Your task to perform on an android device: Add usb-c to the cart on ebay.com Image 0: 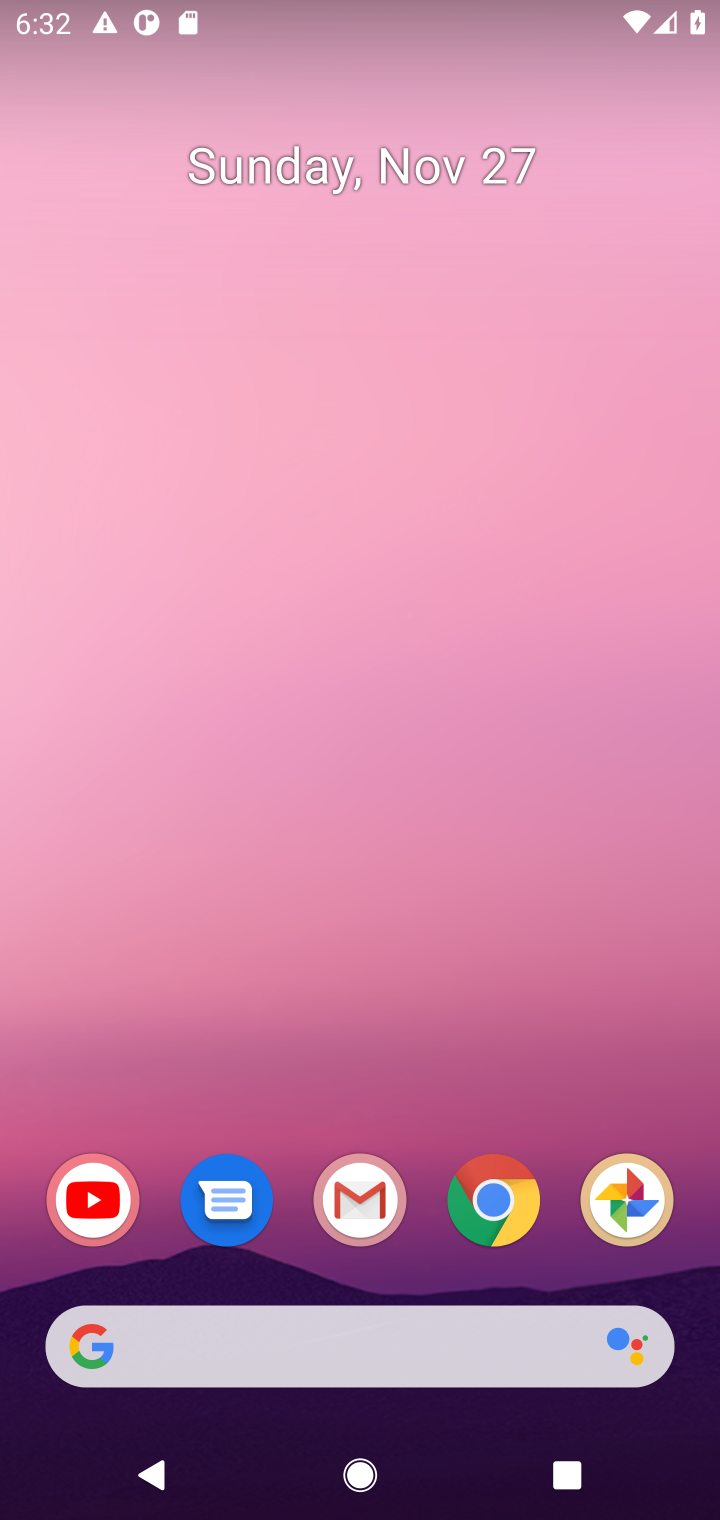
Step 0: click (508, 1204)
Your task to perform on an android device: Add usb-c to the cart on ebay.com Image 1: 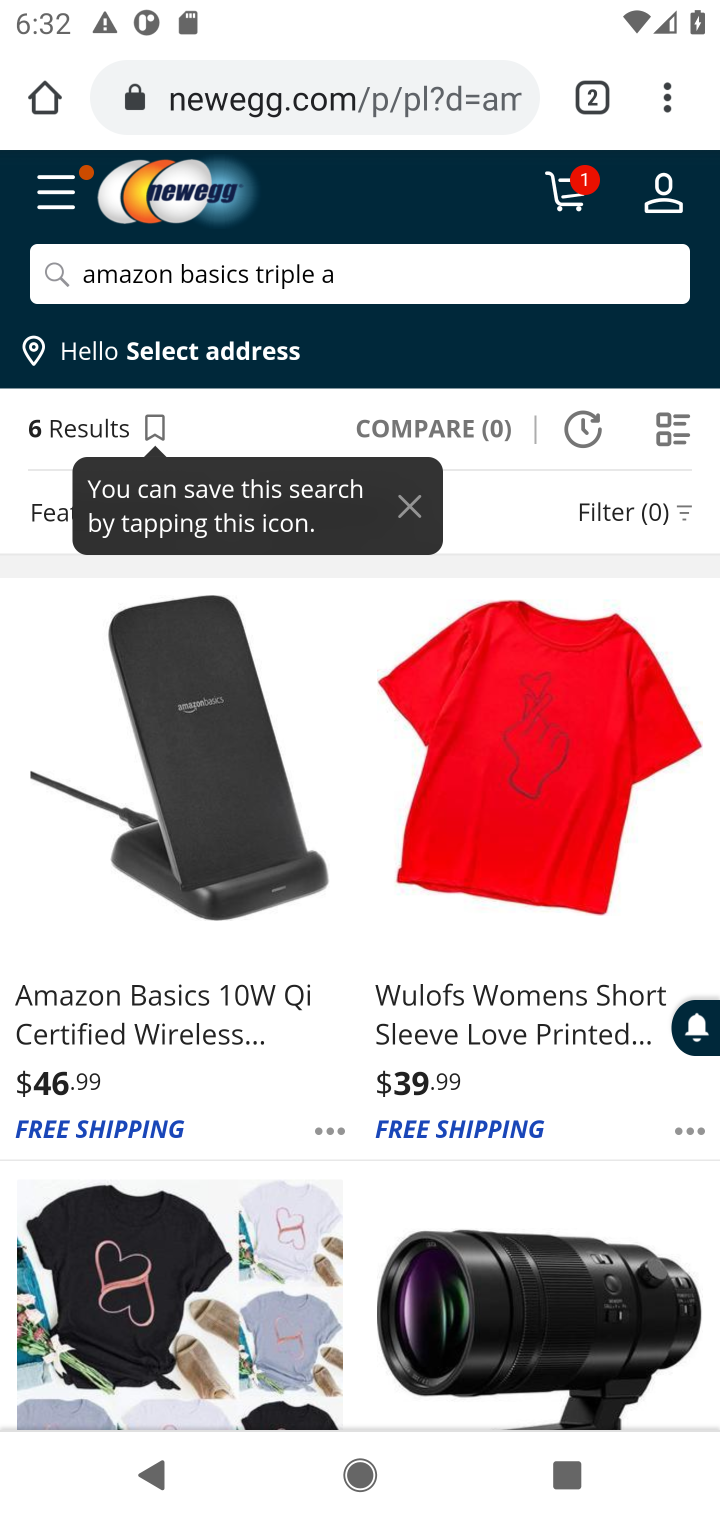
Step 1: click (236, 102)
Your task to perform on an android device: Add usb-c to the cart on ebay.com Image 2: 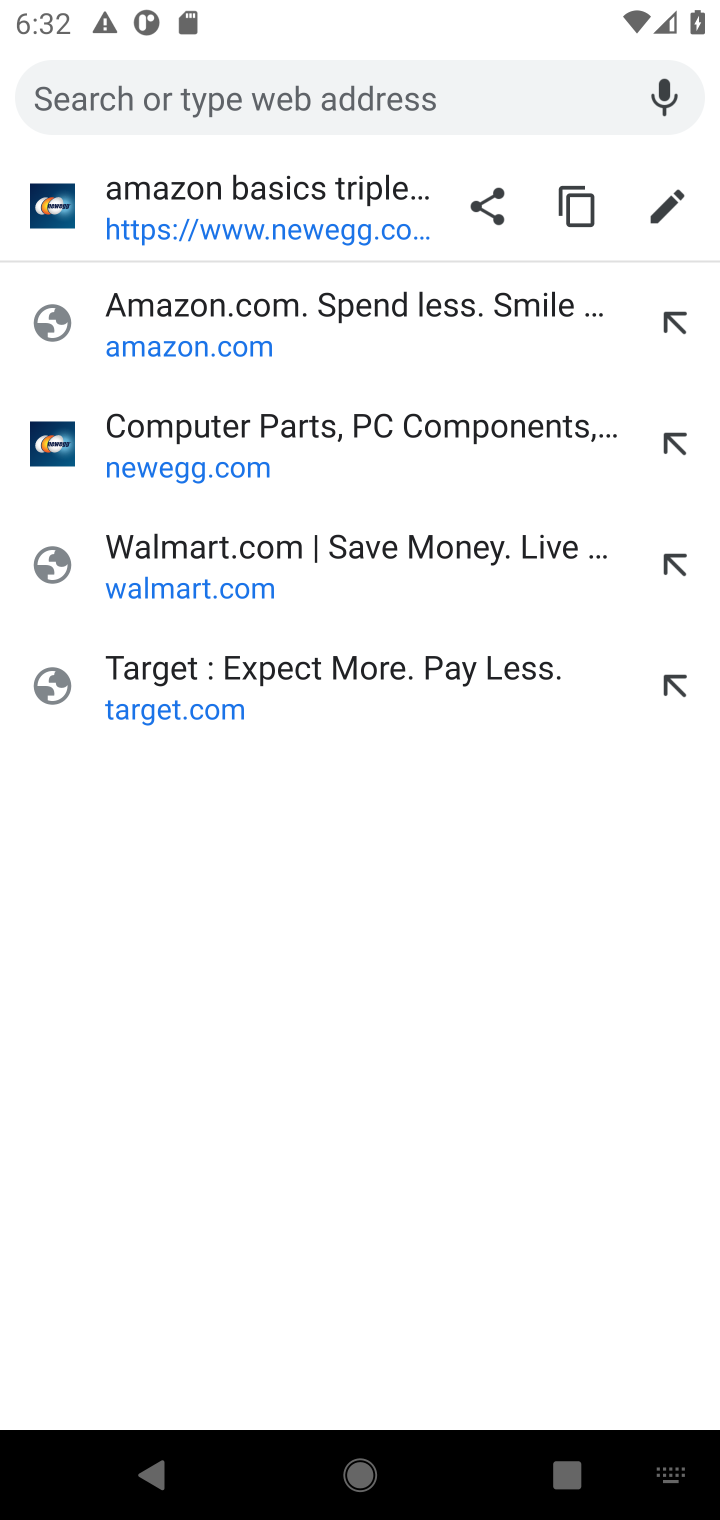
Step 2: type "ebay.com"
Your task to perform on an android device: Add usb-c to the cart on ebay.com Image 3: 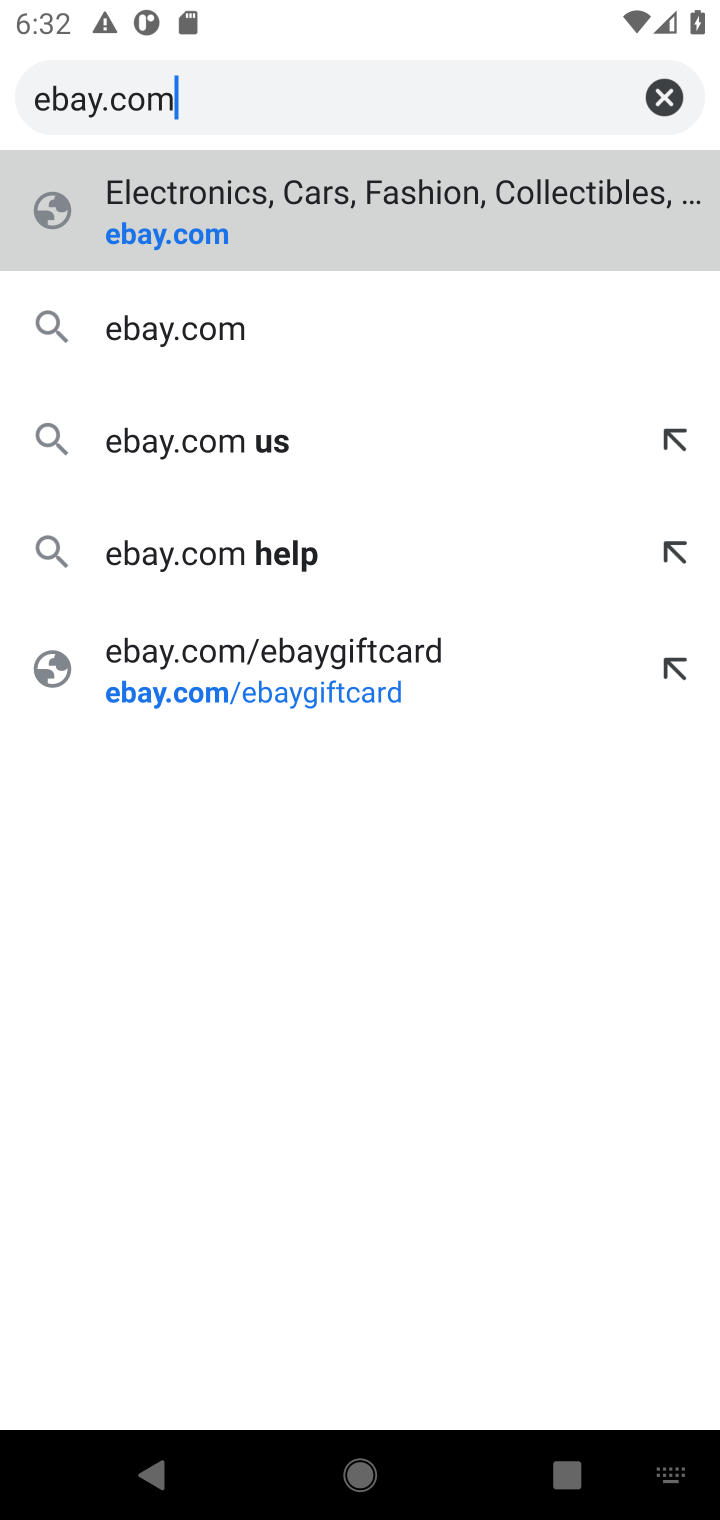
Step 3: click (142, 244)
Your task to perform on an android device: Add usb-c to the cart on ebay.com Image 4: 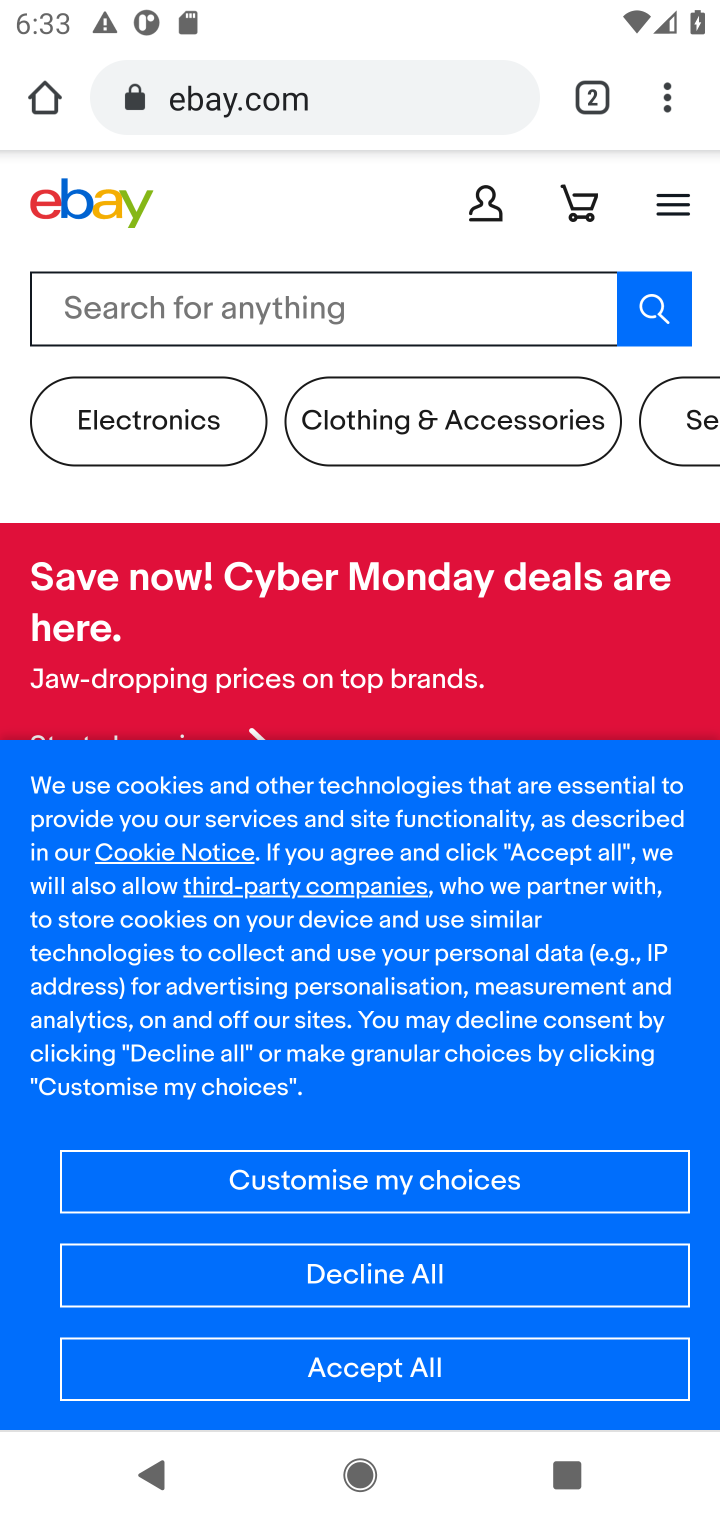
Step 4: click (132, 301)
Your task to perform on an android device: Add usb-c to the cart on ebay.com Image 5: 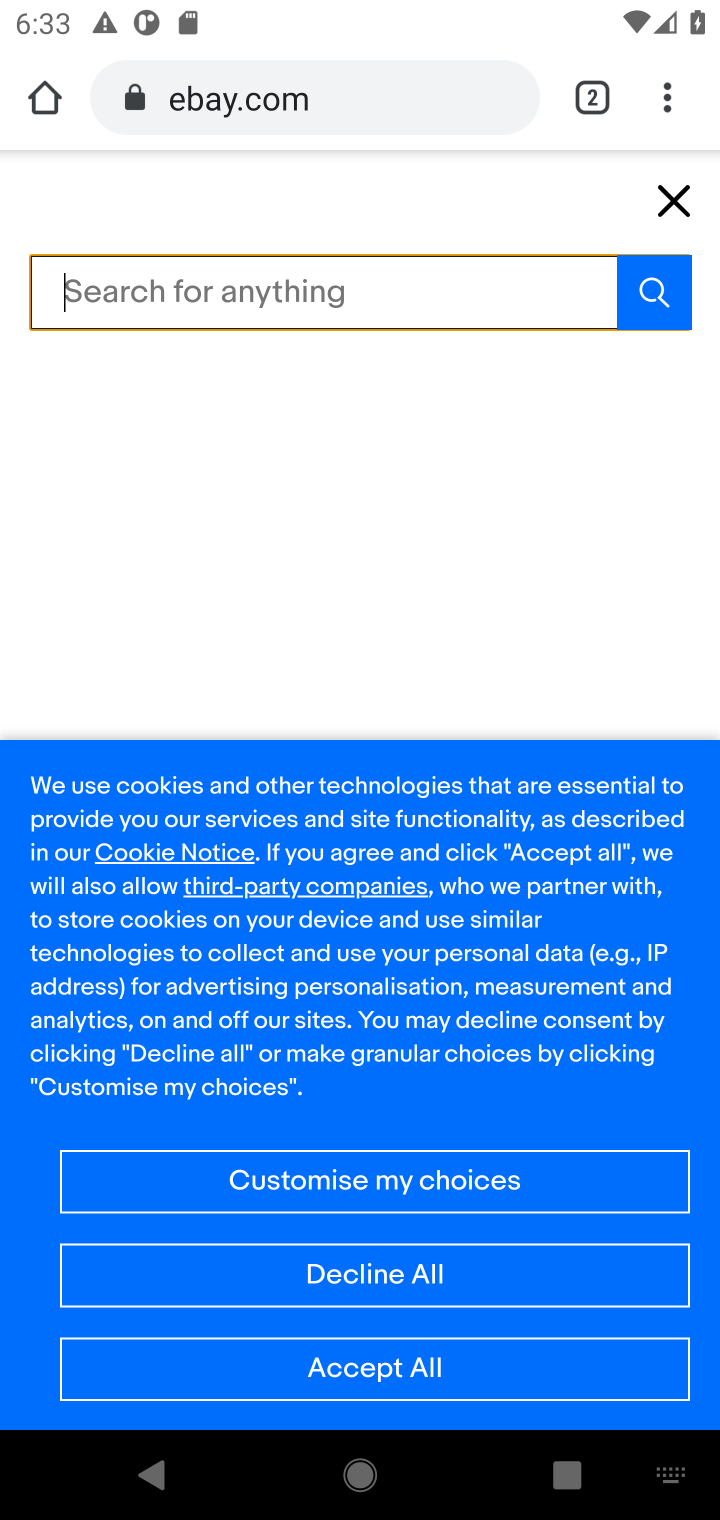
Step 5: type "usb-c"
Your task to perform on an android device: Add usb-c to the cart on ebay.com Image 6: 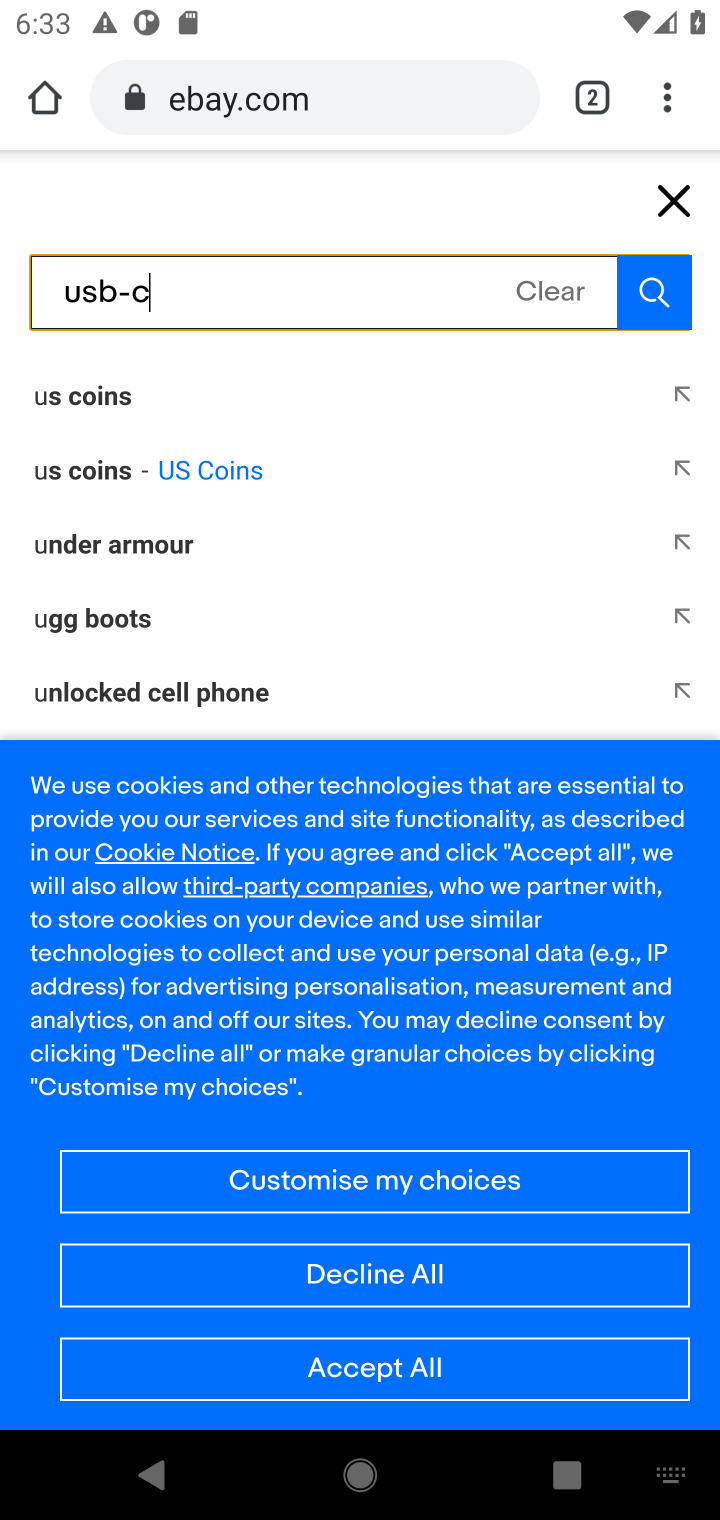
Step 6: click (642, 298)
Your task to perform on an android device: Add usb-c to the cart on ebay.com Image 7: 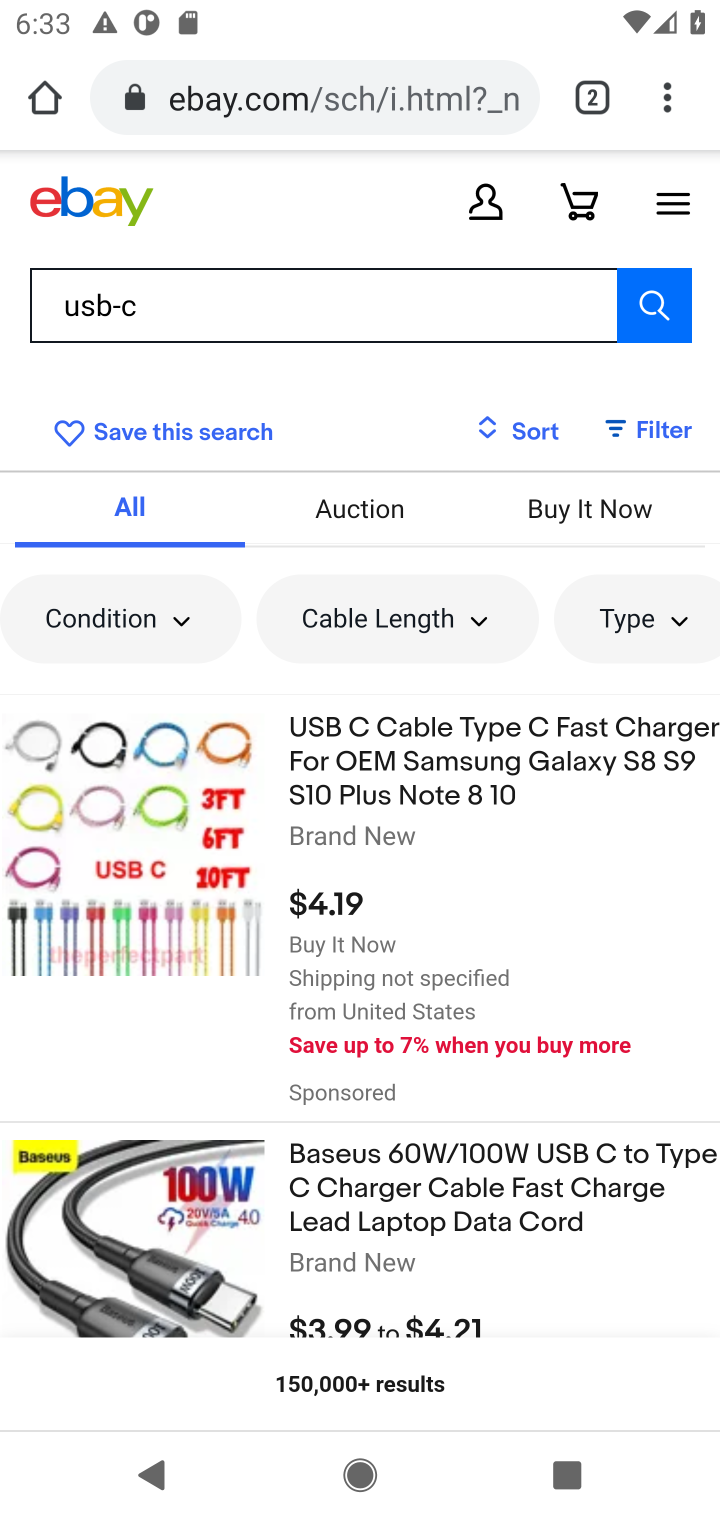
Step 7: click (91, 865)
Your task to perform on an android device: Add usb-c to the cart on ebay.com Image 8: 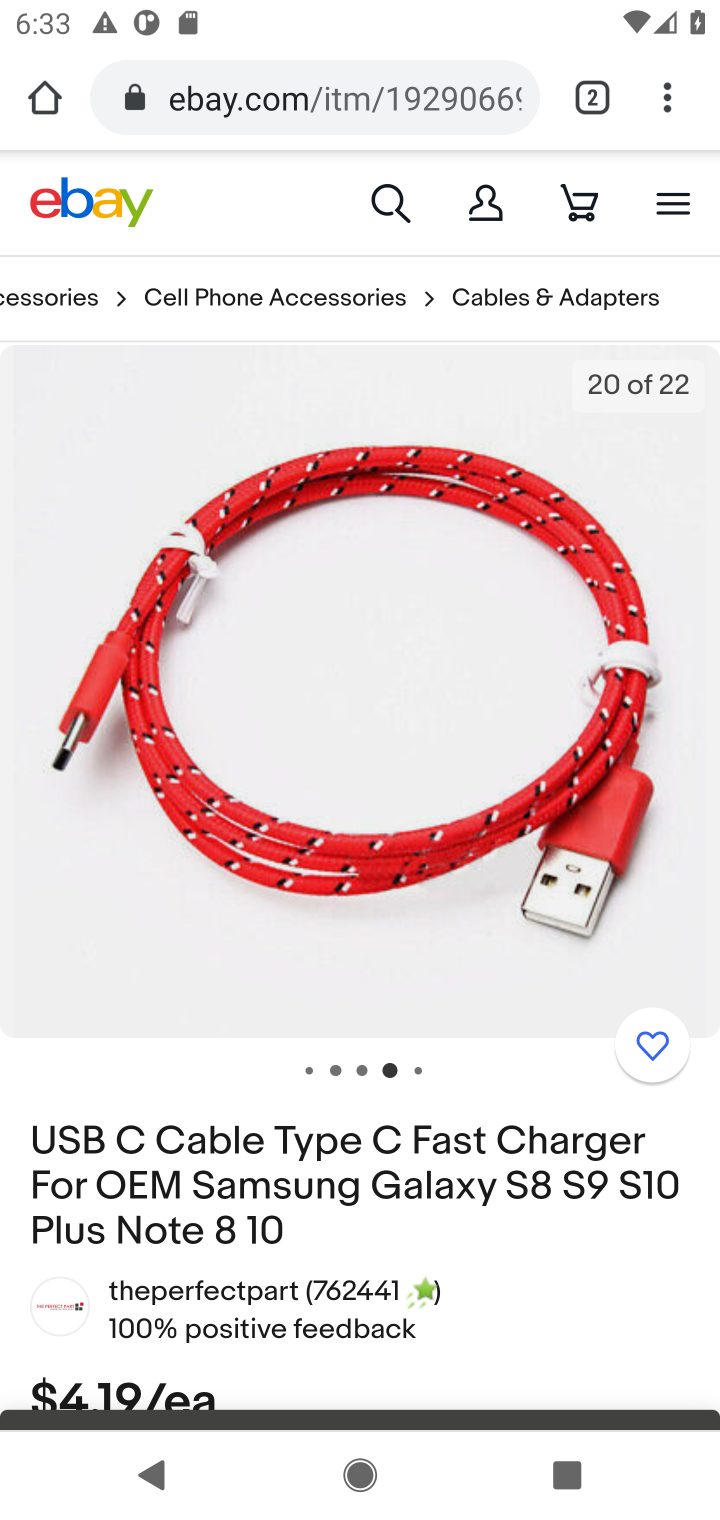
Step 8: drag from (421, 1145) to (345, 496)
Your task to perform on an android device: Add usb-c to the cart on ebay.com Image 9: 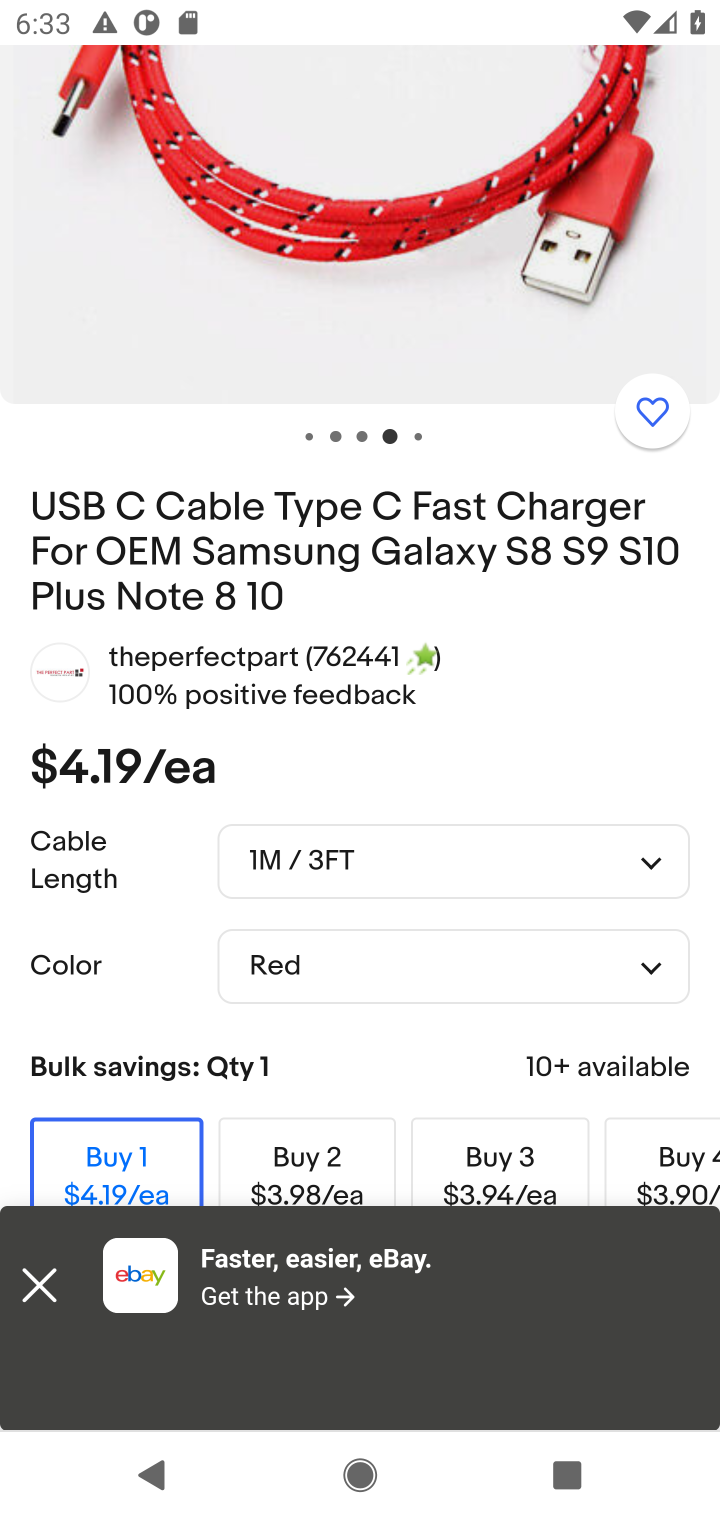
Step 9: drag from (338, 1021) to (302, 627)
Your task to perform on an android device: Add usb-c to the cart on ebay.com Image 10: 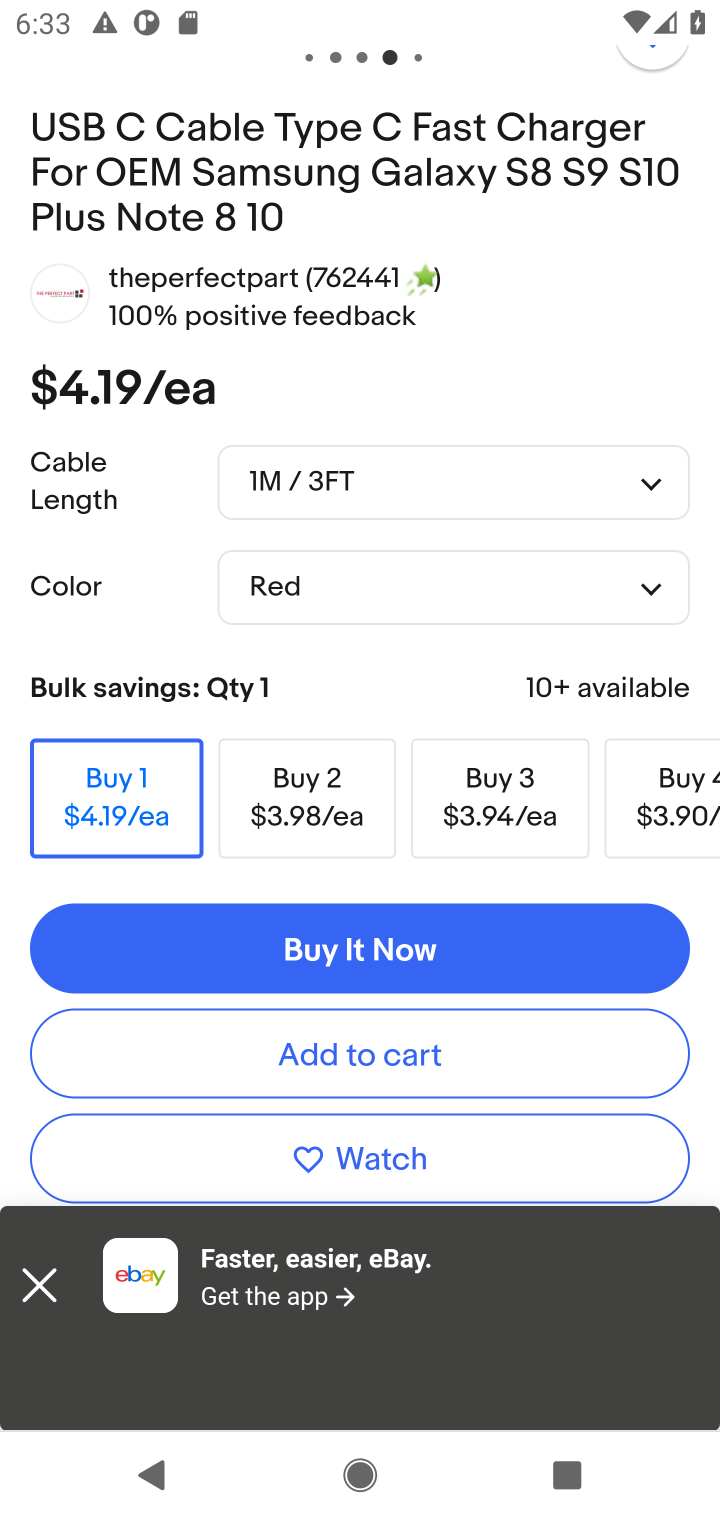
Step 10: click (327, 1064)
Your task to perform on an android device: Add usb-c to the cart on ebay.com Image 11: 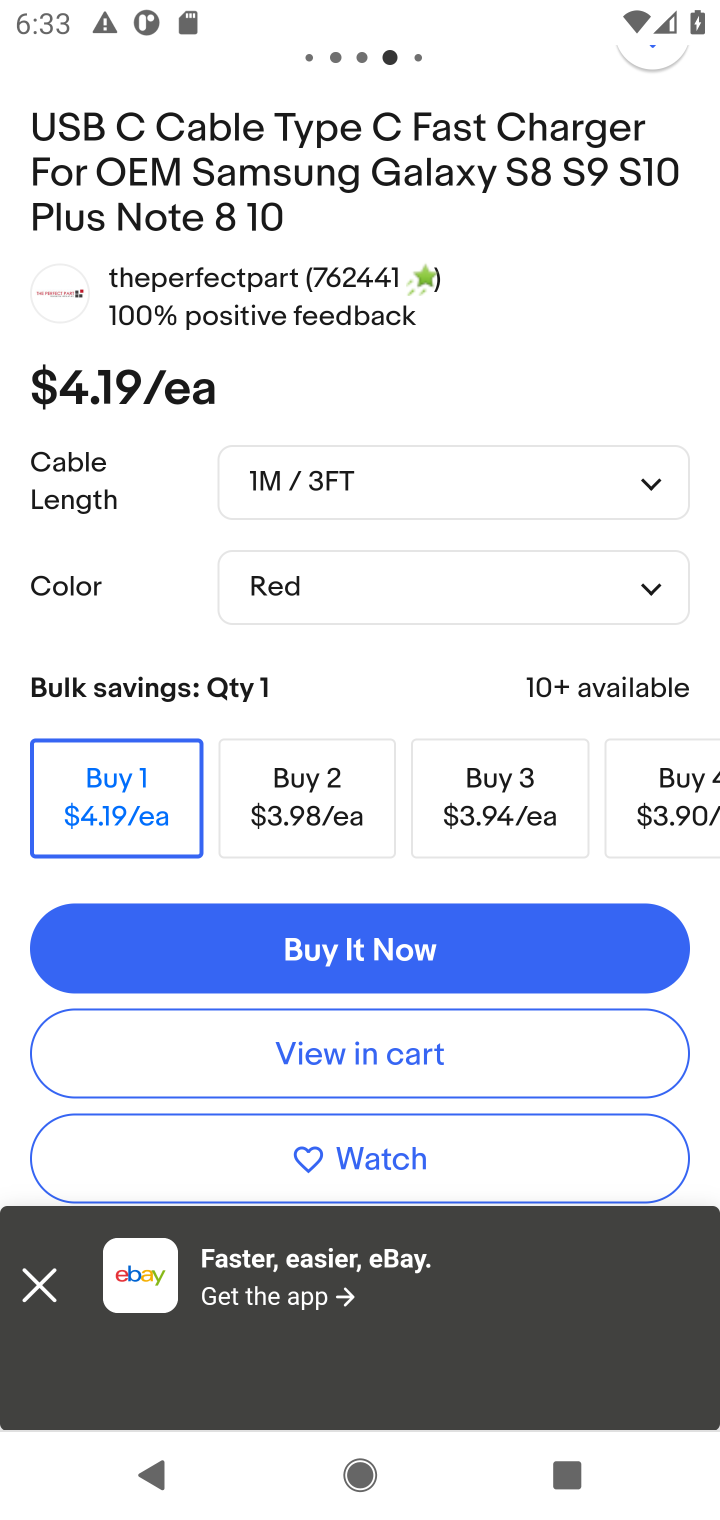
Step 11: task complete